Your task to perform on an android device: toggle pop-ups in chrome Image 0: 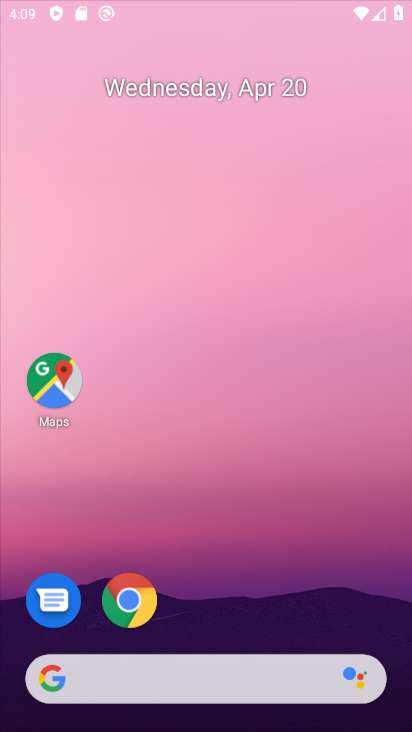
Step 0: click (300, 126)
Your task to perform on an android device: toggle pop-ups in chrome Image 1: 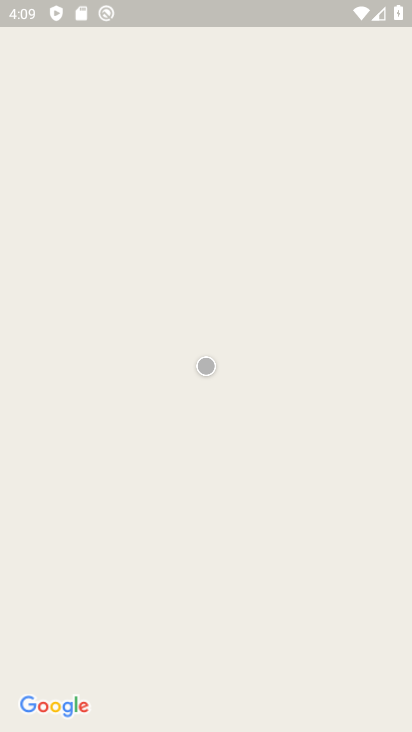
Step 1: press back button
Your task to perform on an android device: toggle pop-ups in chrome Image 2: 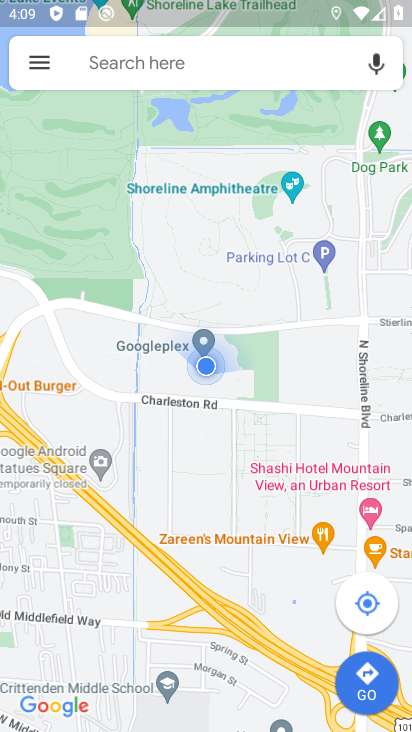
Step 2: press back button
Your task to perform on an android device: toggle pop-ups in chrome Image 3: 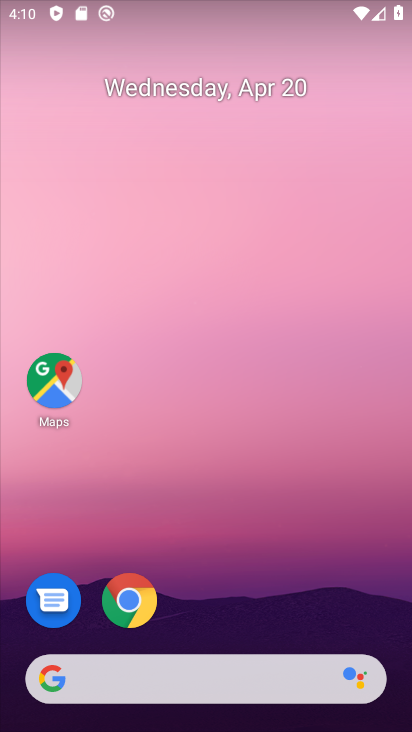
Step 3: drag from (196, 654) to (303, 163)
Your task to perform on an android device: toggle pop-ups in chrome Image 4: 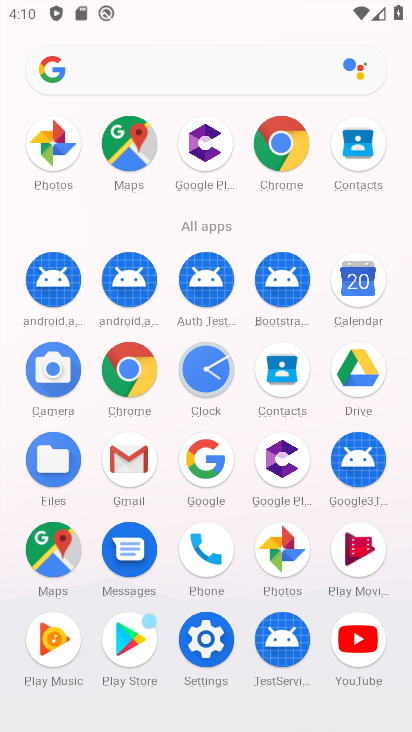
Step 4: click (132, 384)
Your task to perform on an android device: toggle pop-ups in chrome Image 5: 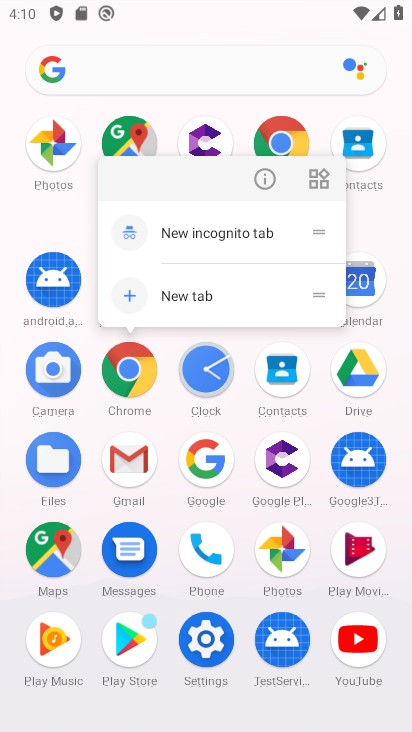
Step 5: click (134, 381)
Your task to perform on an android device: toggle pop-ups in chrome Image 6: 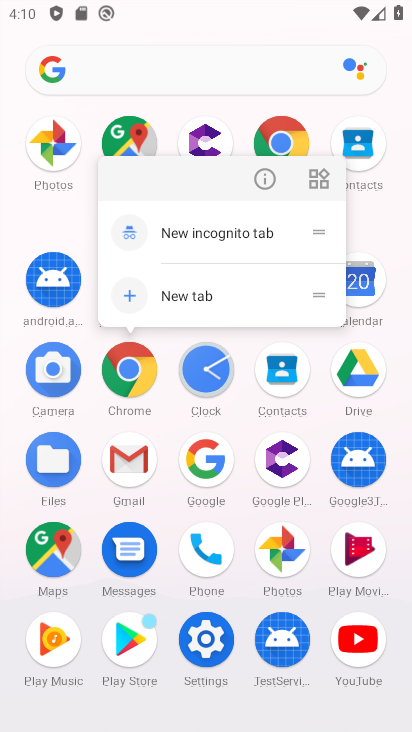
Step 6: click (136, 380)
Your task to perform on an android device: toggle pop-ups in chrome Image 7: 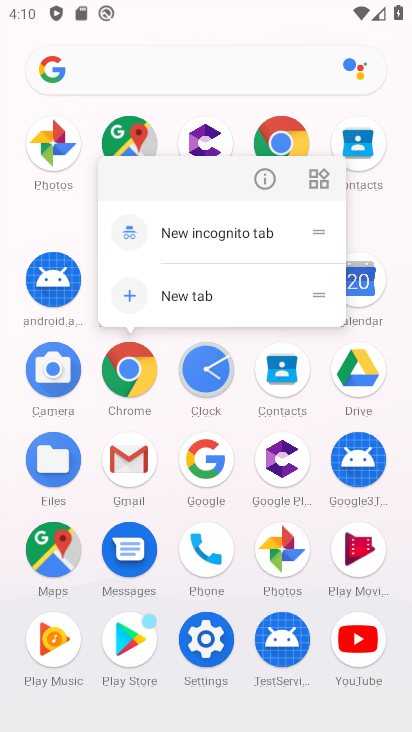
Step 7: click (133, 365)
Your task to perform on an android device: toggle pop-ups in chrome Image 8: 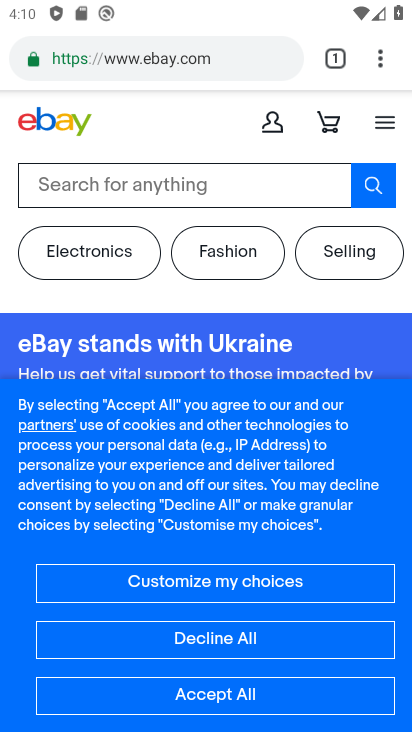
Step 8: drag from (384, 69) to (259, 633)
Your task to perform on an android device: toggle pop-ups in chrome Image 9: 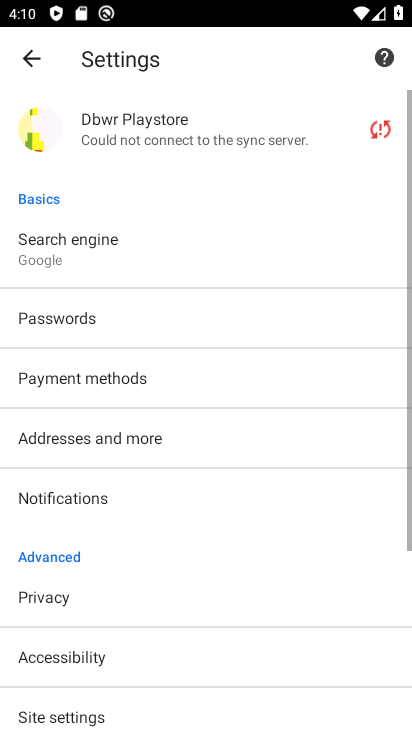
Step 9: drag from (160, 613) to (275, 171)
Your task to perform on an android device: toggle pop-ups in chrome Image 10: 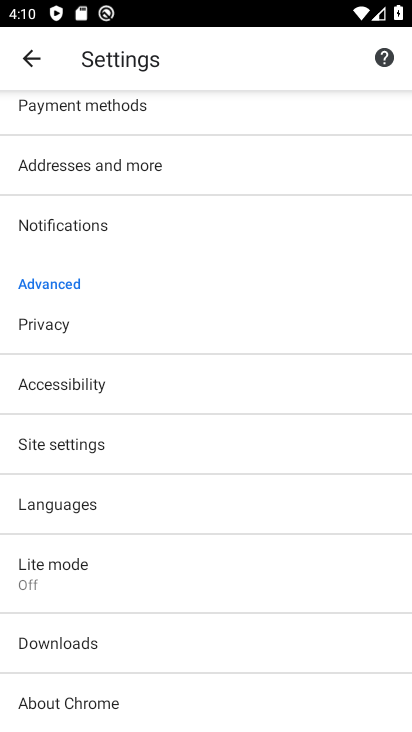
Step 10: click (120, 449)
Your task to perform on an android device: toggle pop-ups in chrome Image 11: 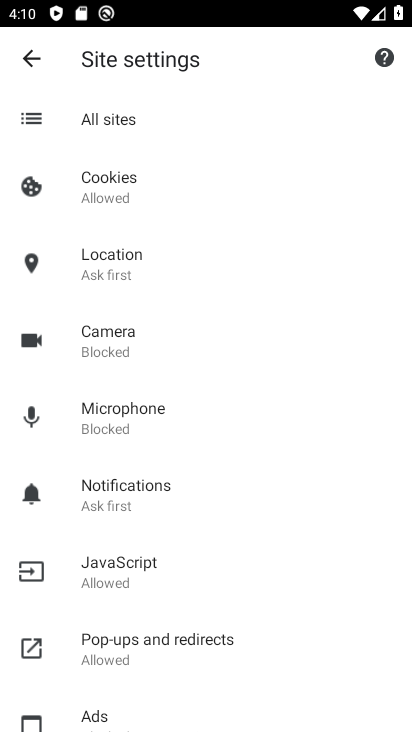
Step 11: click (165, 665)
Your task to perform on an android device: toggle pop-ups in chrome Image 12: 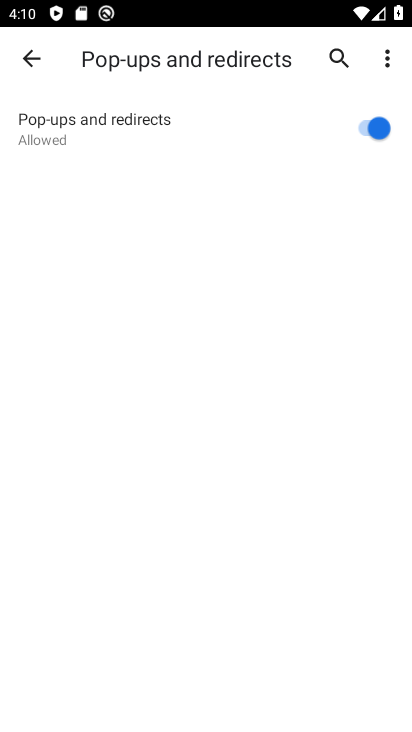
Step 12: click (367, 124)
Your task to perform on an android device: toggle pop-ups in chrome Image 13: 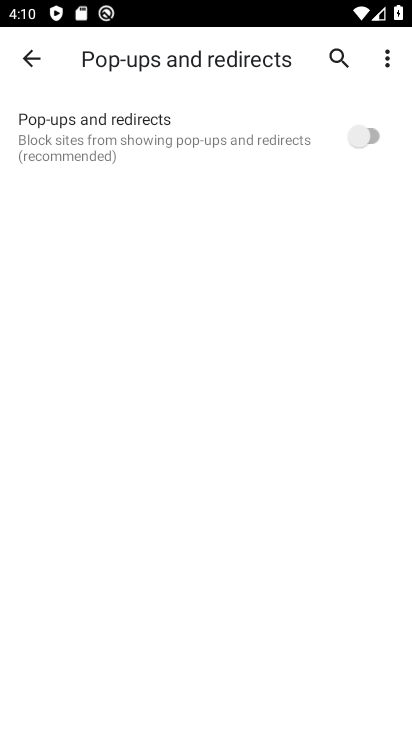
Step 13: task complete